Your task to perform on an android device: open chrome and create a bookmark for the current page Image 0: 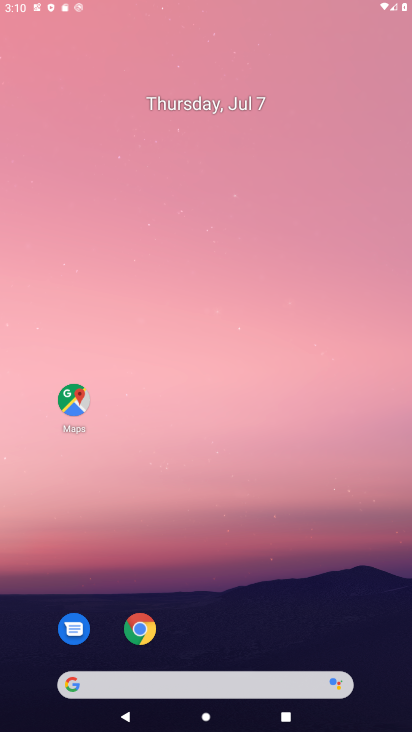
Step 0: drag from (234, 608) to (217, 248)
Your task to perform on an android device: open chrome and create a bookmark for the current page Image 1: 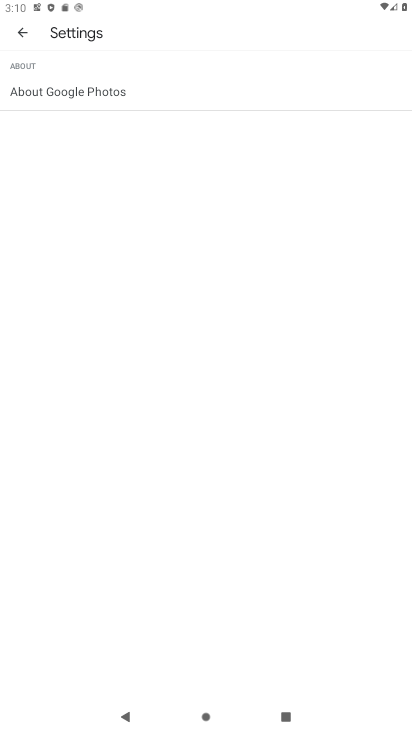
Step 1: press home button
Your task to perform on an android device: open chrome and create a bookmark for the current page Image 2: 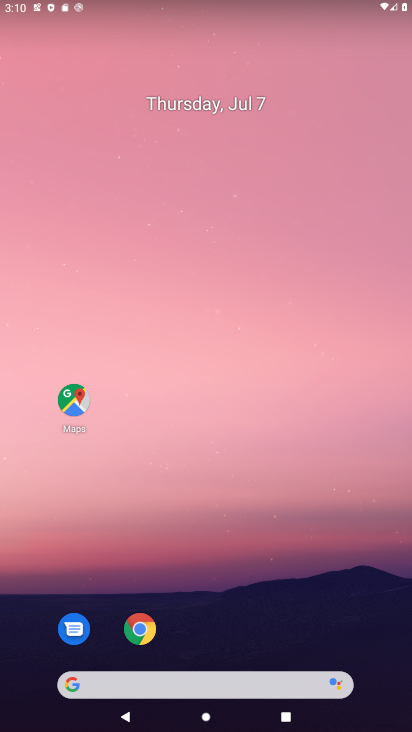
Step 2: drag from (260, 595) to (224, 241)
Your task to perform on an android device: open chrome and create a bookmark for the current page Image 3: 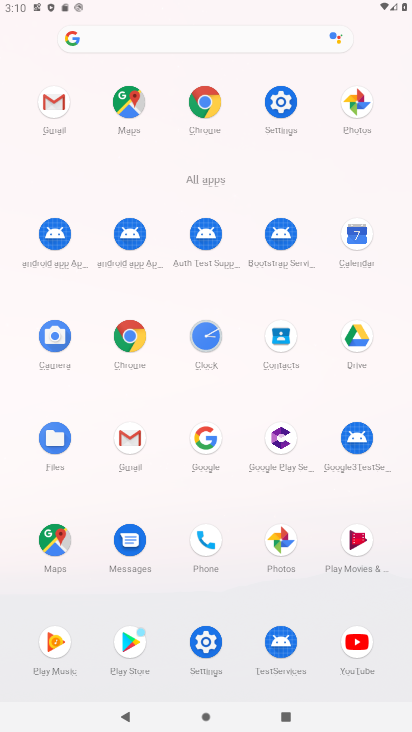
Step 3: click (265, 536)
Your task to perform on an android device: open chrome and create a bookmark for the current page Image 4: 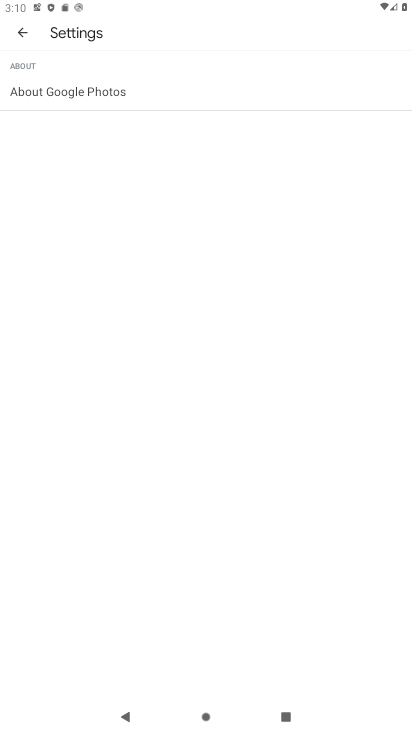
Step 4: press home button
Your task to perform on an android device: open chrome and create a bookmark for the current page Image 5: 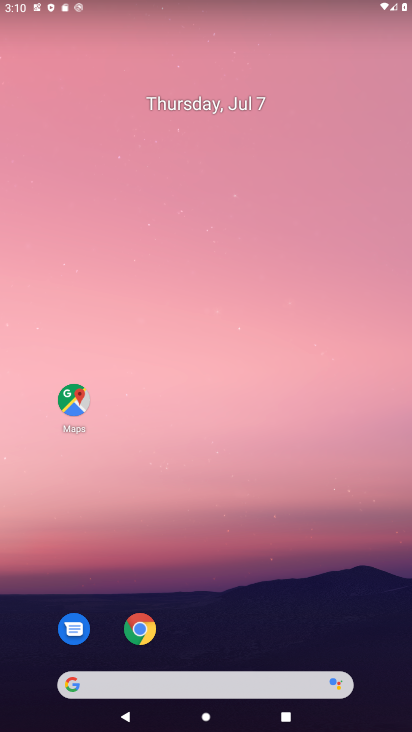
Step 5: drag from (240, 541) to (248, 165)
Your task to perform on an android device: open chrome and create a bookmark for the current page Image 6: 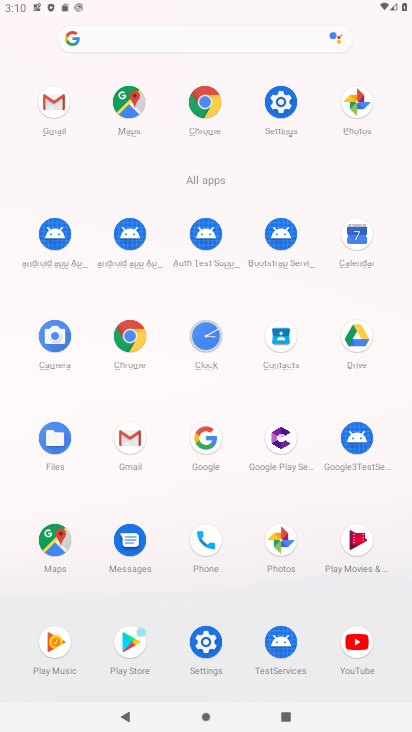
Step 6: click (208, 105)
Your task to perform on an android device: open chrome and create a bookmark for the current page Image 7: 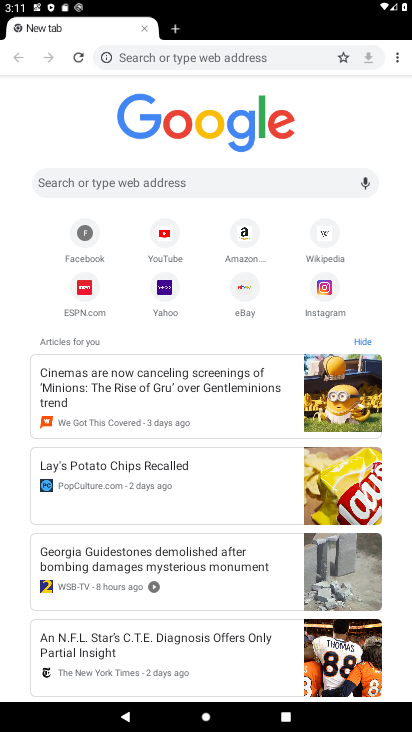
Step 7: click (395, 52)
Your task to perform on an android device: open chrome and create a bookmark for the current page Image 8: 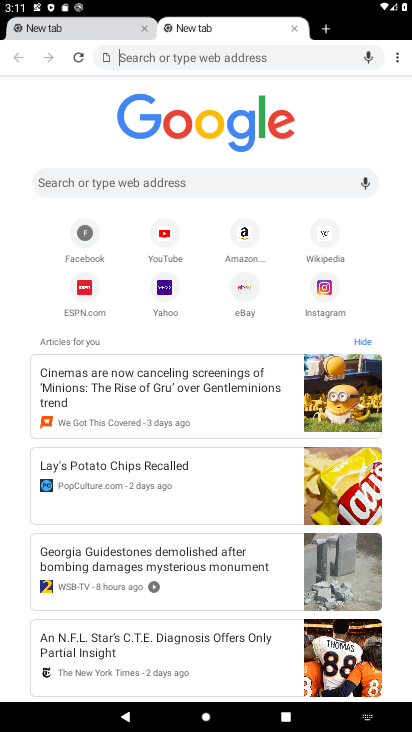
Step 8: click (405, 51)
Your task to perform on an android device: open chrome and create a bookmark for the current page Image 9: 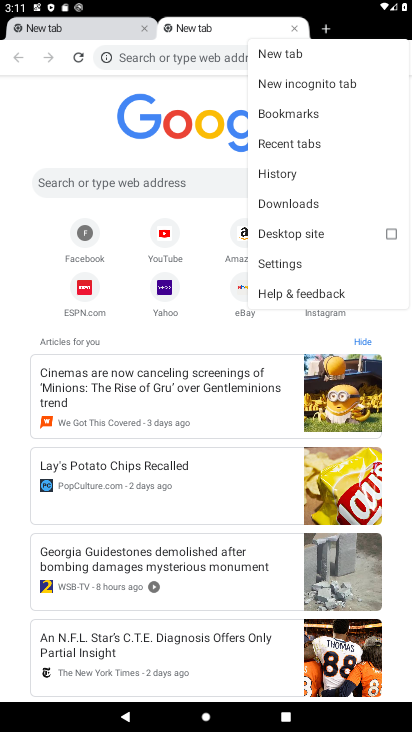
Step 9: click (326, 109)
Your task to perform on an android device: open chrome and create a bookmark for the current page Image 10: 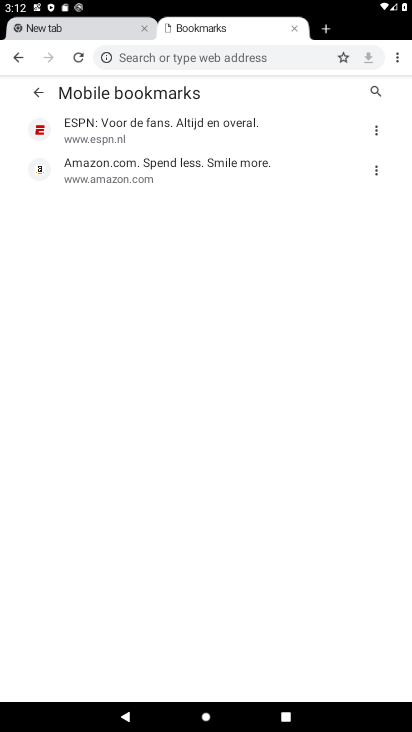
Step 10: click (127, 127)
Your task to perform on an android device: open chrome and create a bookmark for the current page Image 11: 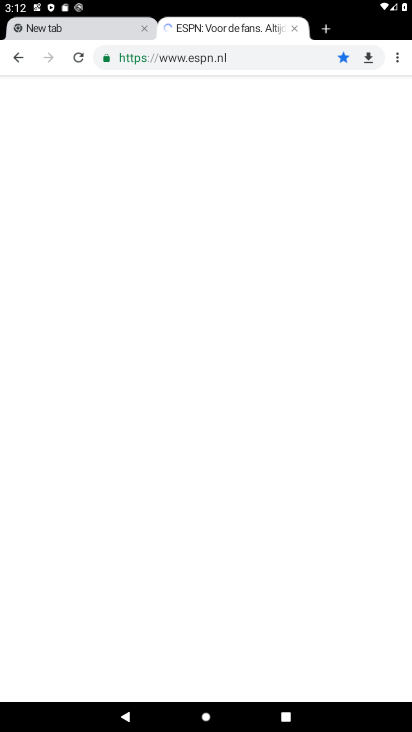
Step 11: task complete